Your task to perform on an android device: Open the stopwatch Image 0: 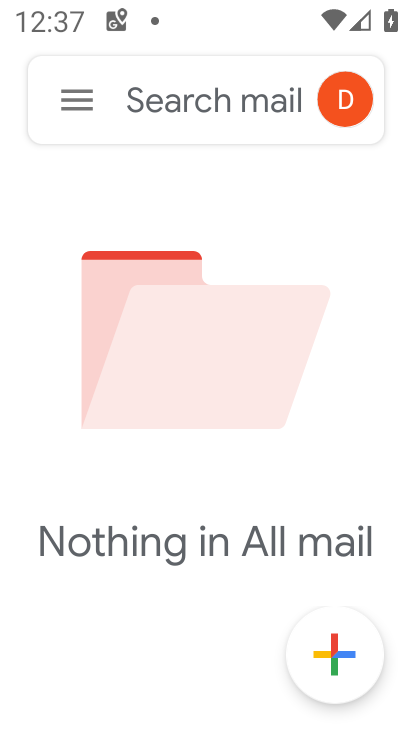
Step 0: press back button
Your task to perform on an android device: Open the stopwatch Image 1: 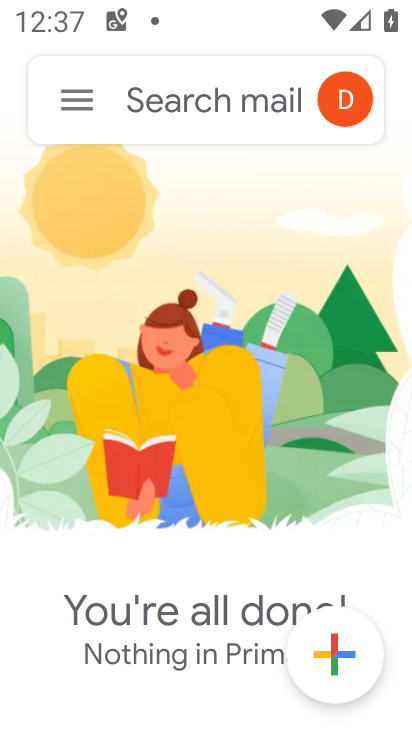
Step 1: press back button
Your task to perform on an android device: Open the stopwatch Image 2: 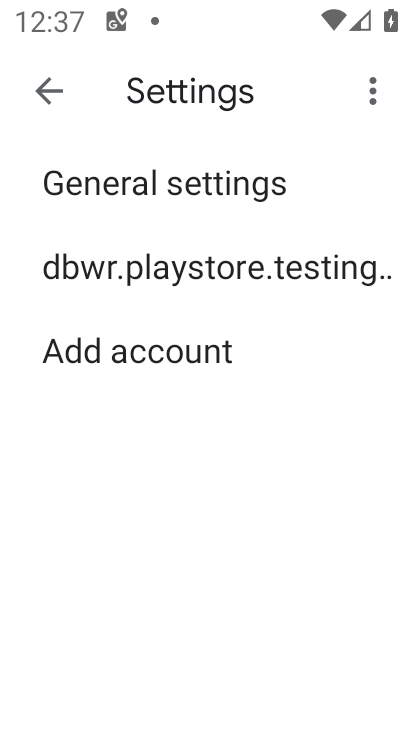
Step 2: press back button
Your task to perform on an android device: Open the stopwatch Image 3: 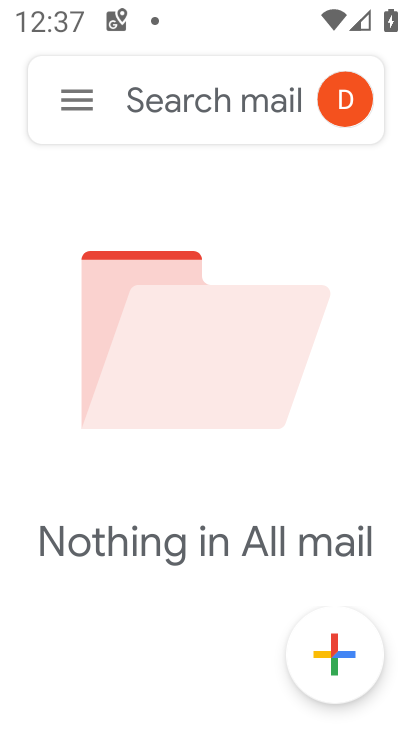
Step 3: press back button
Your task to perform on an android device: Open the stopwatch Image 4: 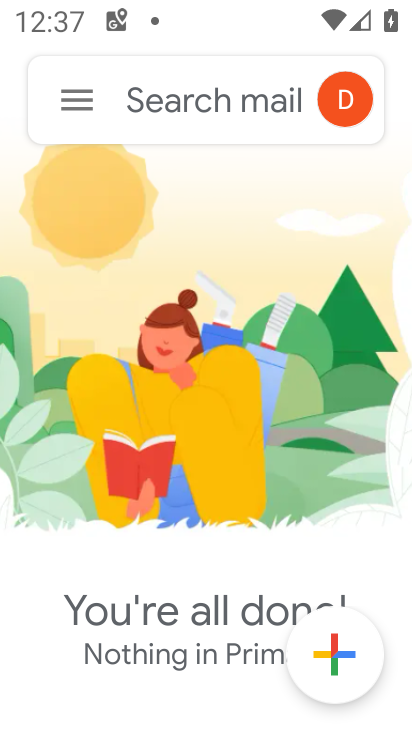
Step 4: press back button
Your task to perform on an android device: Open the stopwatch Image 5: 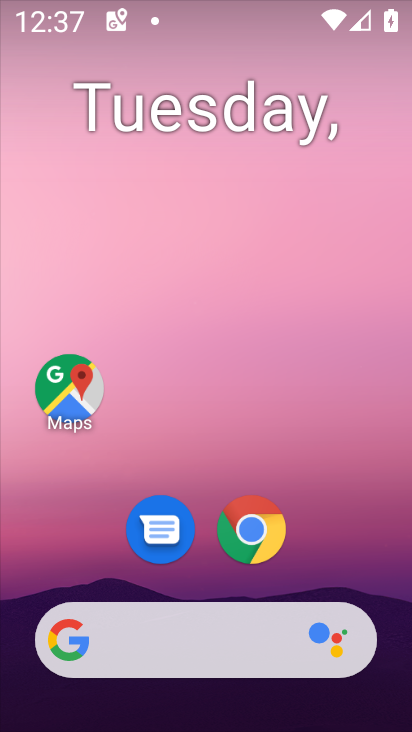
Step 5: drag from (251, 402) to (260, 119)
Your task to perform on an android device: Open the stopwatch Image 6: 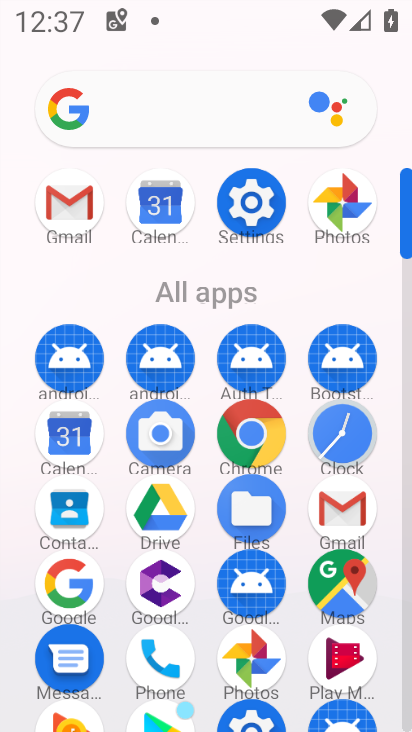
Step 6: click (355, 441)
Your task to perform on an android device: Open the stopwatch Image 7: 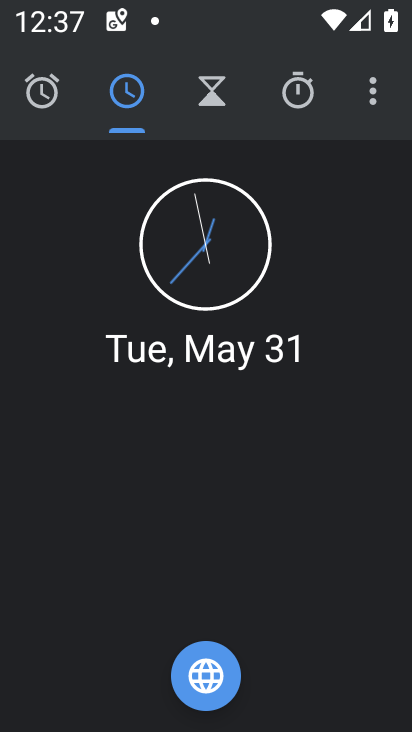
Step 7: click (287, 93)
Your task to perform on an android device: Open the stopwatch Image 8: 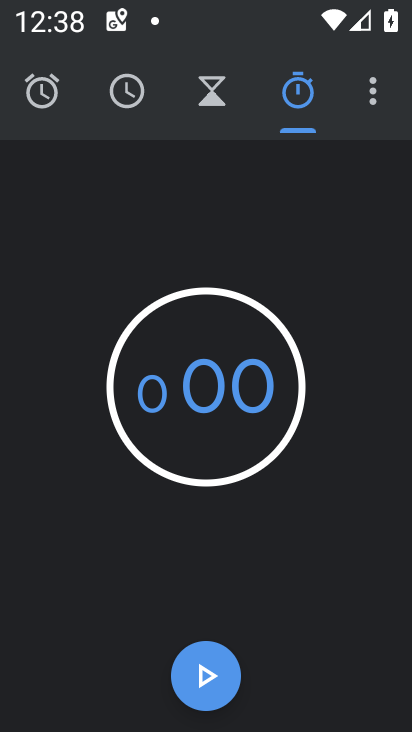
Step 8: task complete